Your task to perform on an android device: allow cookies in the chrome app Image 0: 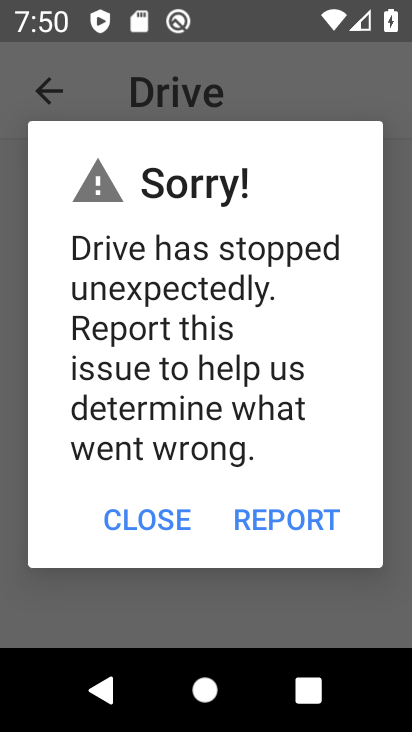
Step 0: press home button
Your task to perform on an android device: allow cookies in the chrome app Image 1: 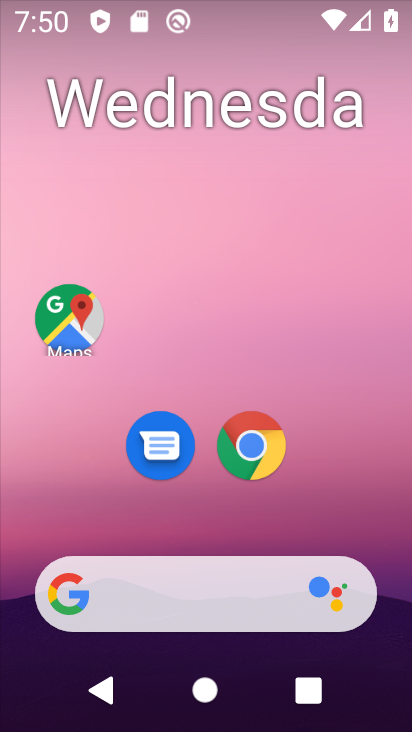
Step 1: drag from (194, 530) to (119, 4)
Your task to perform on an android device: allow cookies in the chrome app Image 2: 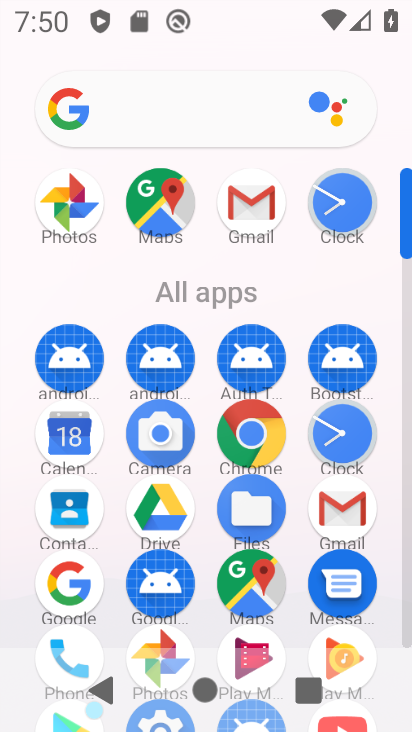
Step 2: click (249, 441)
Your task to perform on an android device: allow cookies in the chrome app Image 3: 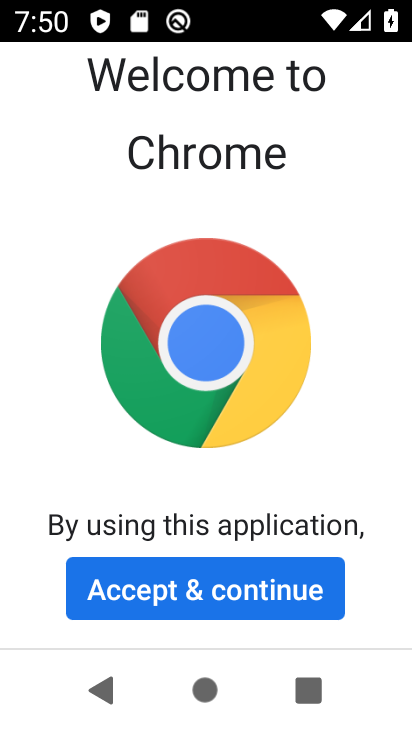
Step 3: click (198, 579)
Your task to perform on an android device: allow cookies in the chrome app Image 4: 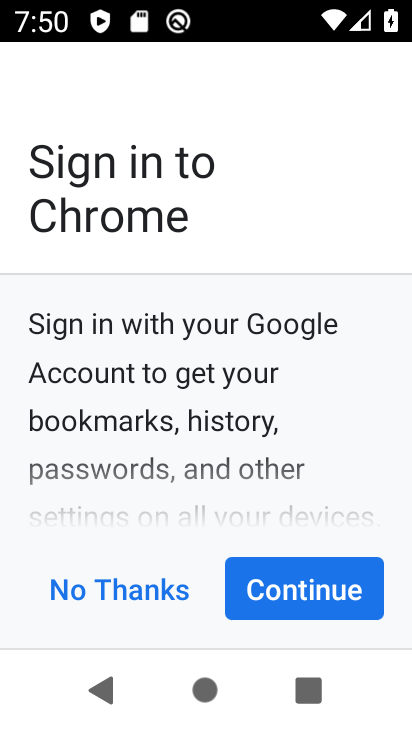
Step 4: click (238, 590)
Your task to perform on an android device: allow cookies in the chrome app Image 5: 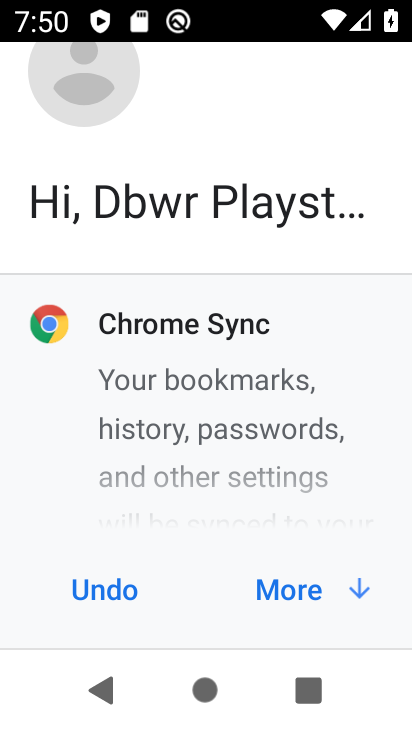
Step 5: click (278, 602)
Your task to perform on an android device: allow cookies in the chrome app Image 6: 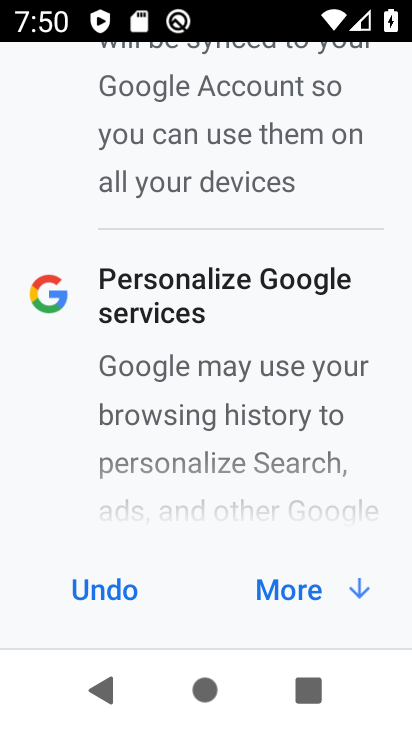
Step 6: click (264, 593)
Your task to perform on an android device: allow cookies in the chrome app Image 7: 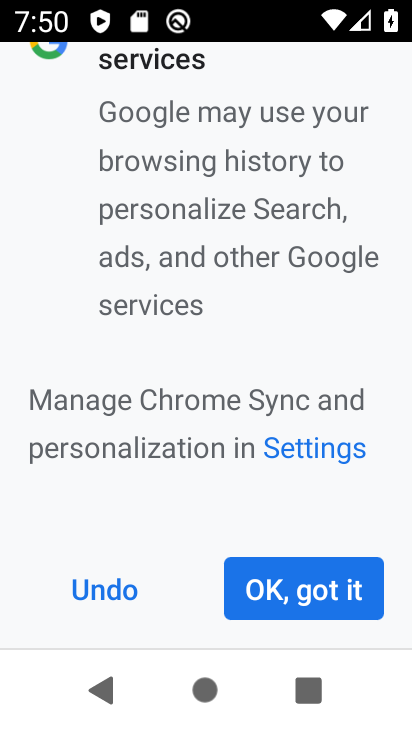
Step 7: click (264, 592)
Your task to perform on an android device: allow cookies in the chrome app Image 8: 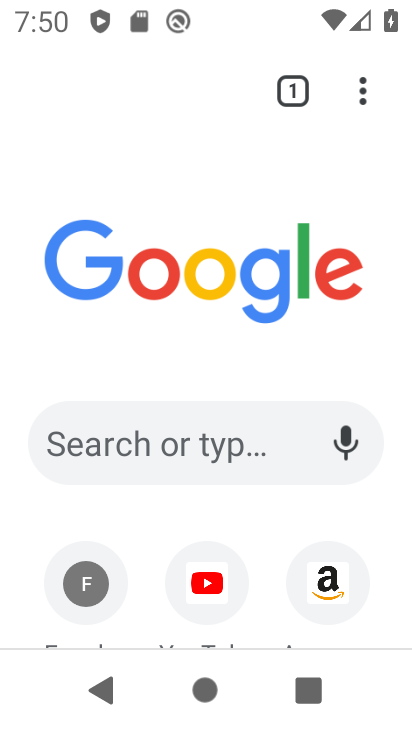
Step 8: click (360, 88)
Your task to perform on an android device: allow cookies in the chrome app Image 9: 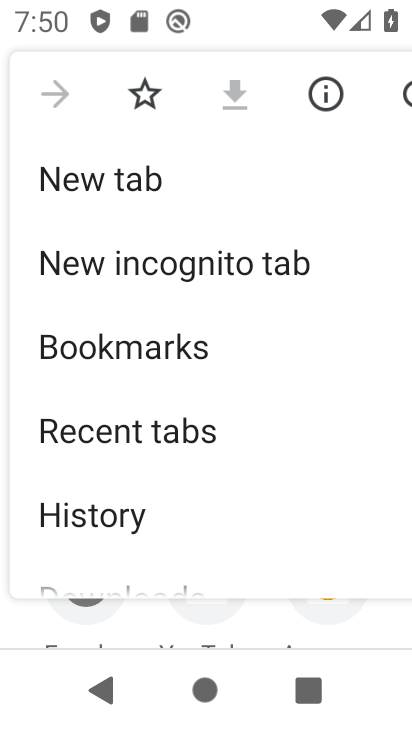
Step 9: drag from (202, 520) to (215, 148)
Your task to perform on an android device: allow cookies in the chrome app Image 10: 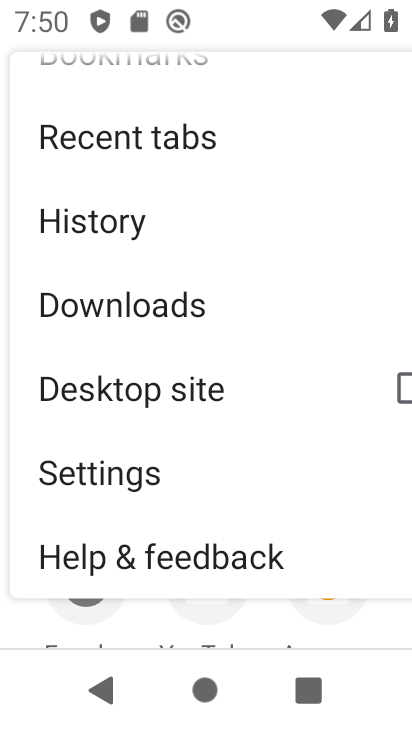
Step 10: click (138, 502)
Your task to perform on an android device: allow cookies in the chrome app Image 11: 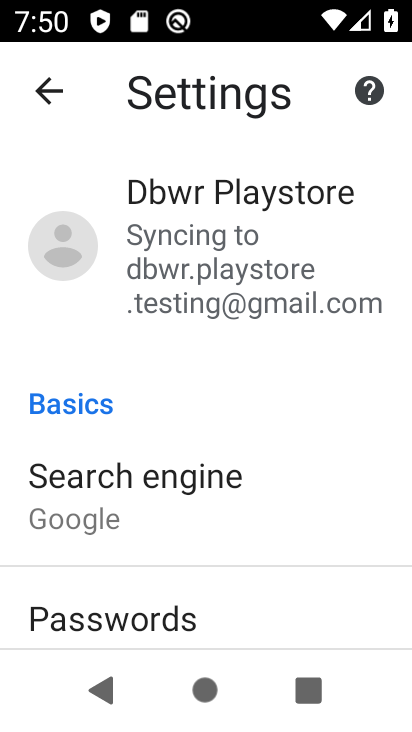
Step 11: drag from (253, 524) to (229, 185)
Your task to perform on an android device: allow cookies in the chrome app Image 12: 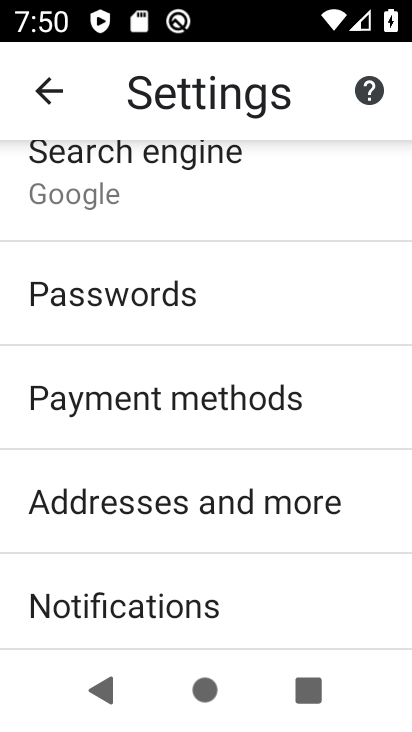
Step 12: drag from (62, 571) to (63, 202)
Your task to perform on an android device: allow cookies in the chrome app Image 13: 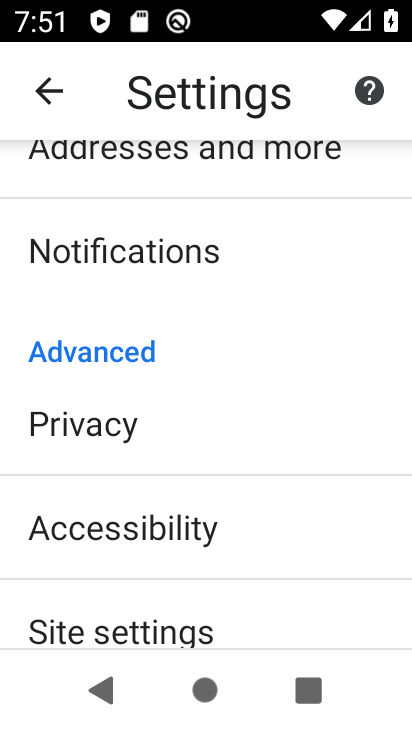
Step 13: drag from (159, 538) to (148, 212)
Your task to perform on an android device: allow cookies in the chrome app Image 14: 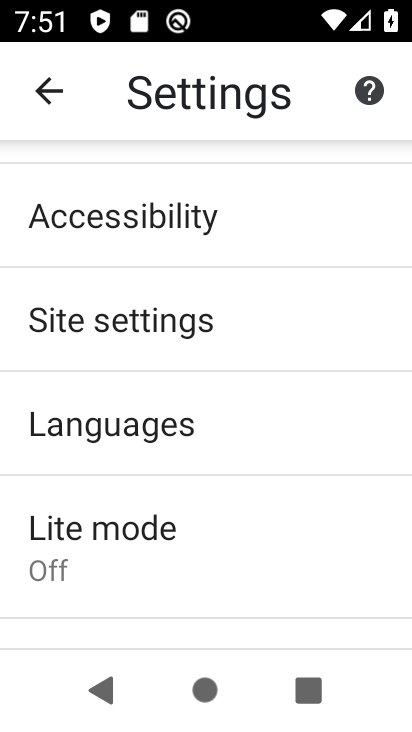
Step 14: click (151, 330)
Your task to perform on an android device: allow cookies in the chrome app Image 15: 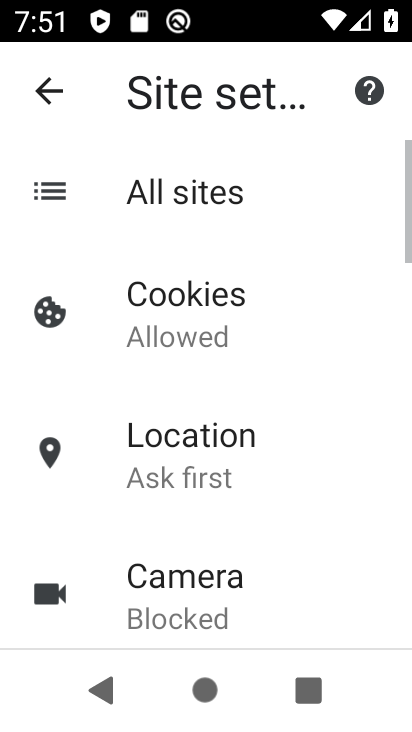
Step 15: click (189, 335)
Your task to perform on an android device: allow cookies in the chrome app Image 16: 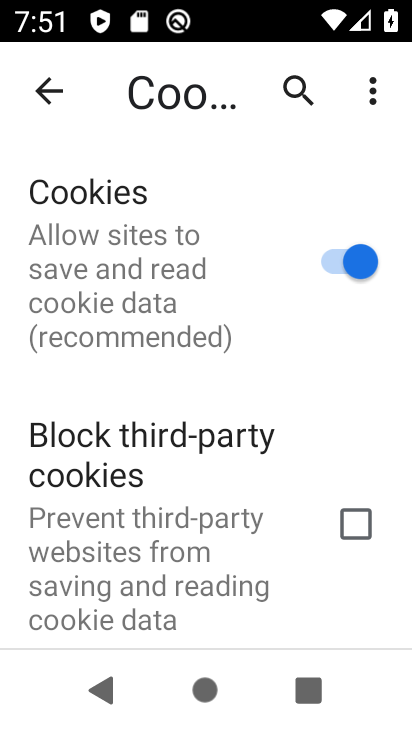
Step 16: task complete